Your task to perform on an android device: Open notification settings Image 0: 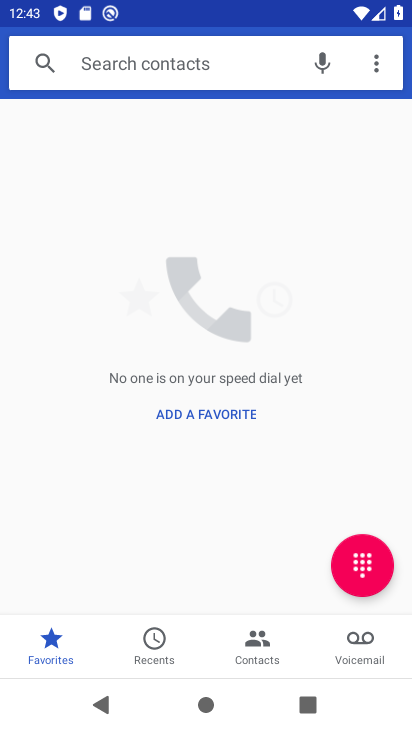
Step 0: press back button
Your task to perform on an android device: Open notification settings Image 1: 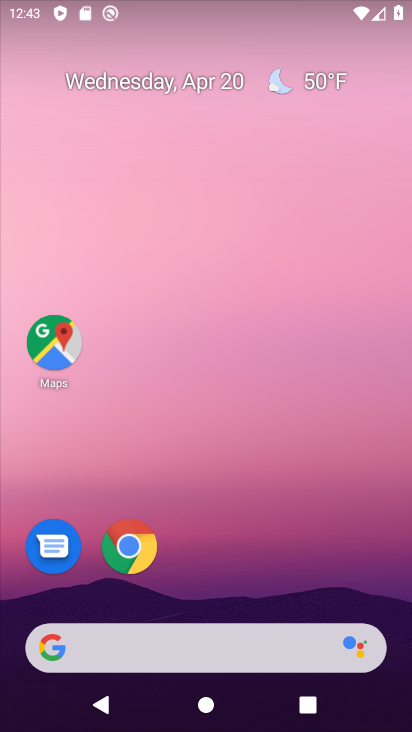
Step 1: drag from (218, 565) to (212, 59)
Your task to perform on an android device: Open notification settings Image 2: 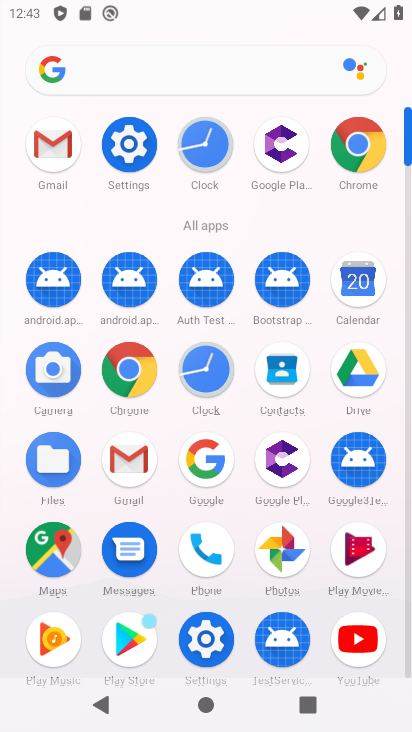
Step 2: click (117, 136)
Your task to perform on an android device: Open notification settings Image 3: 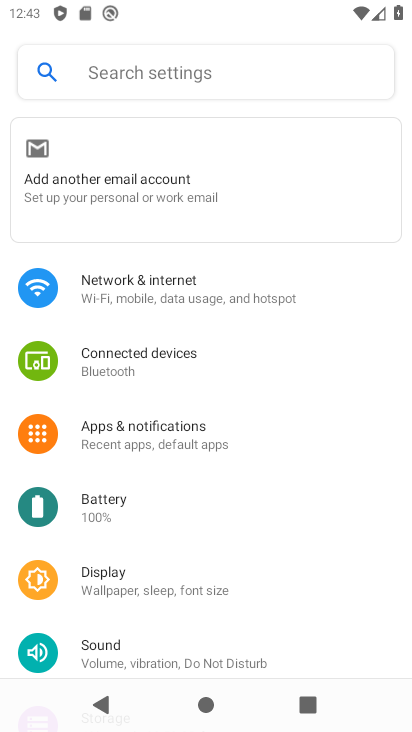
Step 3: click (108, 439)
Your task to perform on an android device: Open notification settings Image 4: 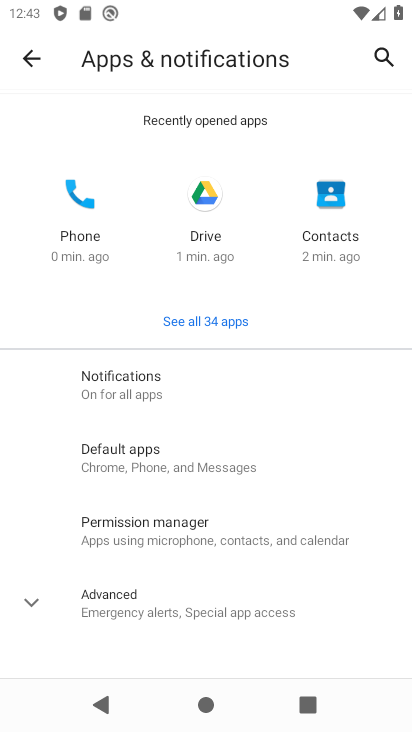
Step 4: task complete